Your task to perform on an android device: Open the calendar and show me this week's events? Image 0: 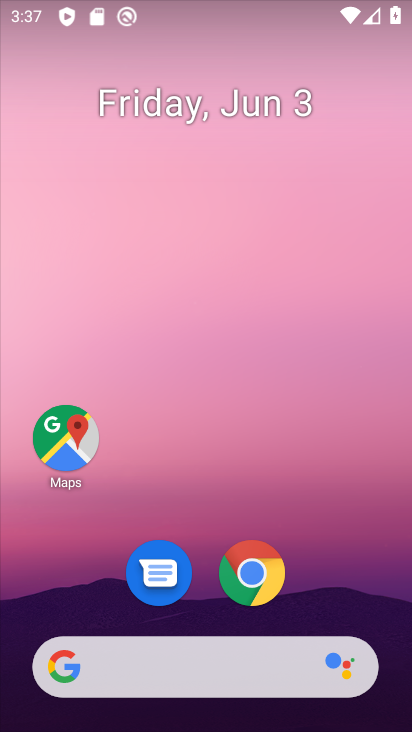
Step 0: drag from (392, 682) to (378, 121)
Your task to perform on an android device: Open the calendar and show me this week's events? Image 1: 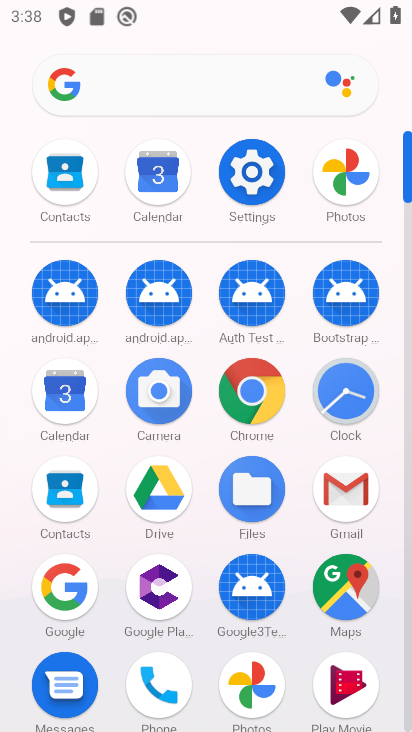
Step 1: click (64, 402)
Your task to perform on an android device: Open the calendar and show me this week's events? Image 2: 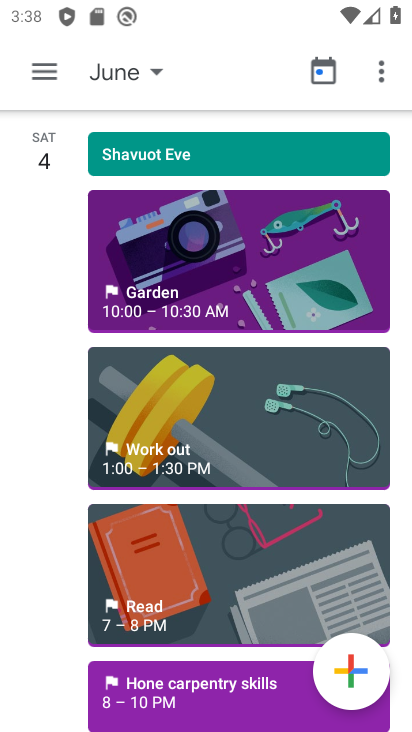
Step 2: click (48, 71)
Your task to perform on an android device: Open the calendar and show me this week's events? Image 3: 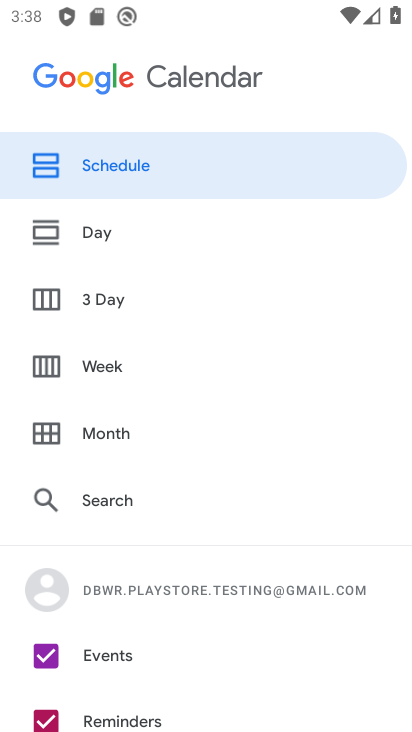
Step 3: click (93, 366)
Your task to perform on an android device: Open the calendar and show me this week's events? Image 4: 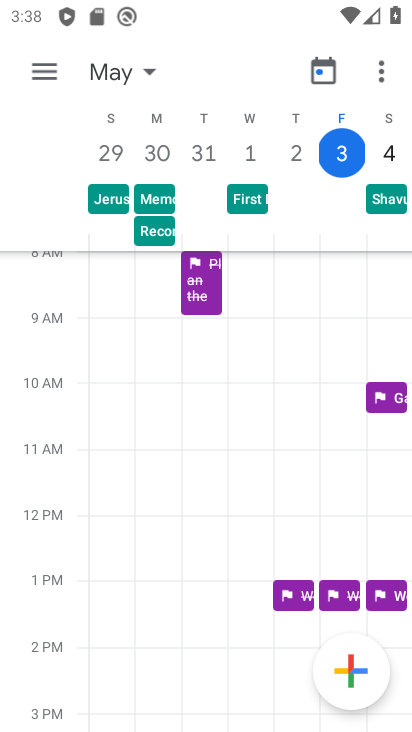
Step 4: click (48, 57)
Your task to perform on an android device: Open the calendar and show me this week's events? Image 5: 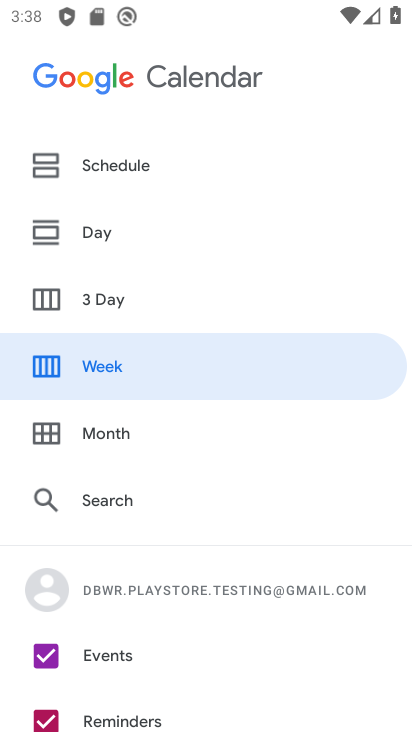
Step 5: click (104, 165)
Your task to perform on an android device: Open the calendar and show me this week's events? Image 6: 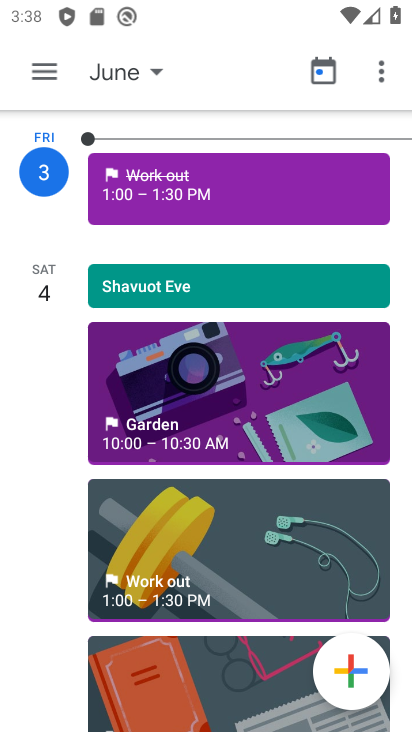
Step 6: task complete